Your task to perform on an android device: change the upload size in google photos Image 0: 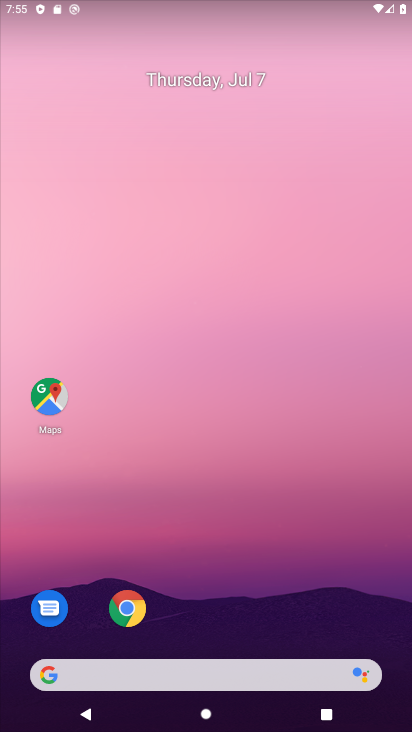
Step 0: drag from (374, 614) to (401, 193)
Your task to perform on an android device: change the upload size in google photos Image 1: 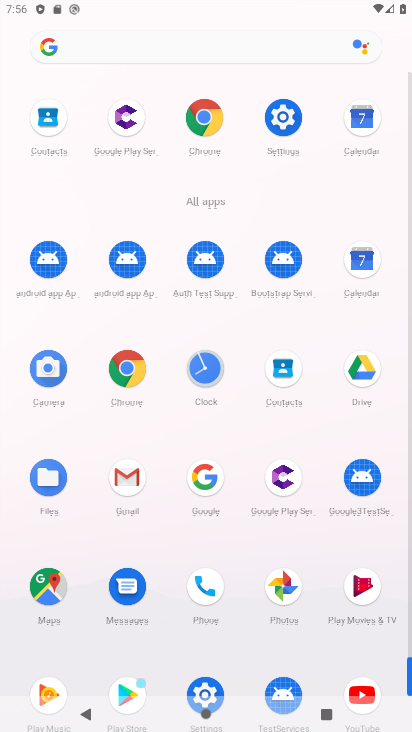
Step 1: click (276, 584)
Your task to perform on an android device: change the upload size in google photos Image 2: 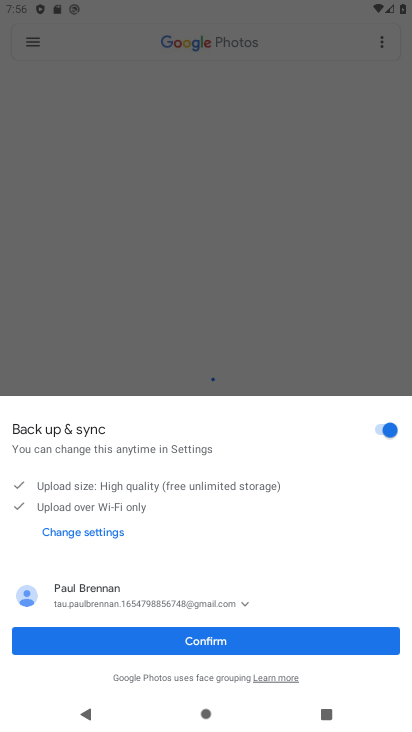
Step 2: click (229, 642)
Your task to perform on an android device: change the upload size in google photos Image 3: 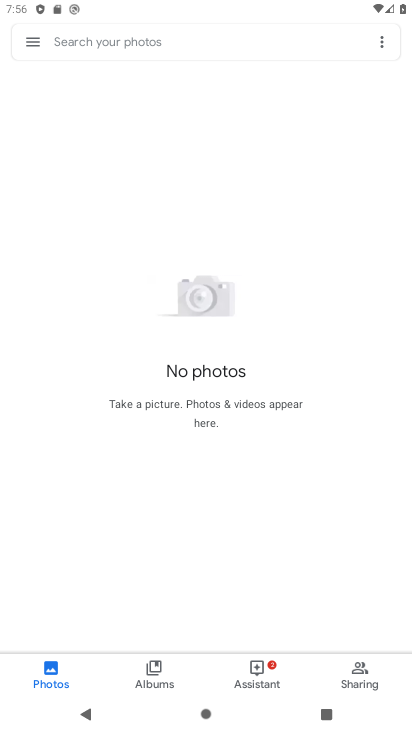
Step 3: click (30, 40)
Your task to perform on an android device: change the upload size in google photos Image 4: 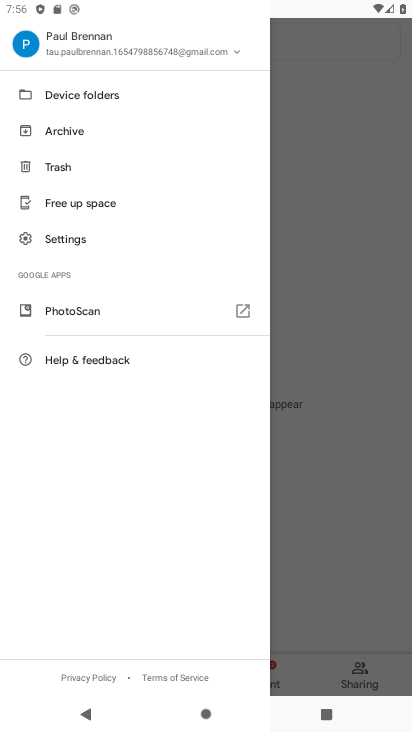
Step 4: click (81, 233)
Your task to perform on an android device: change the upload size in google photos Image 5: 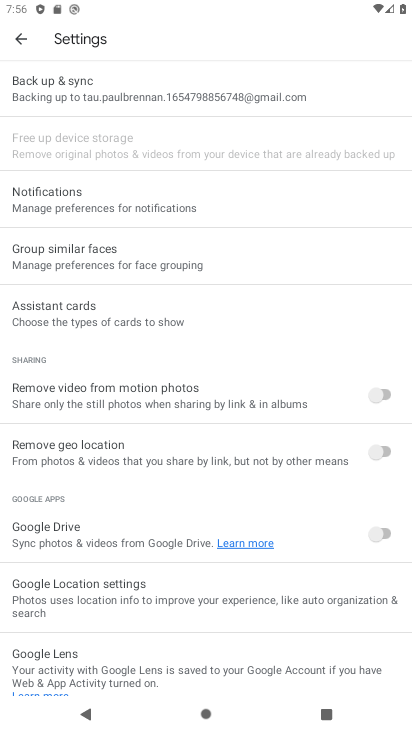
Step 5: click (108, 88)
Your task to perform on an android device: change the upload size in google photos Image 6: 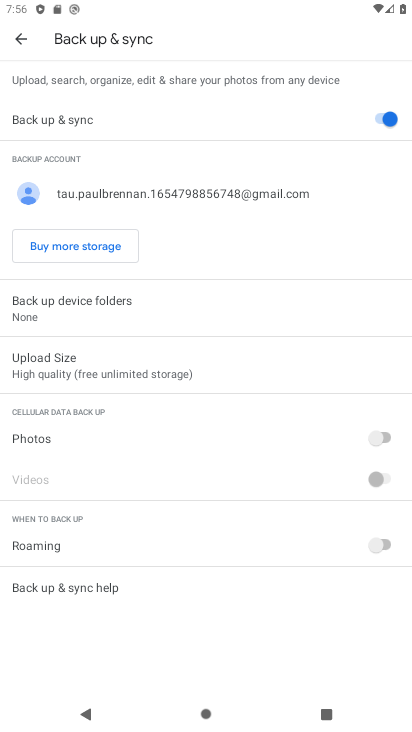
Step 6: click (128, 365)
Your task to perform on an android device: change the upload size in google photos Image 7: 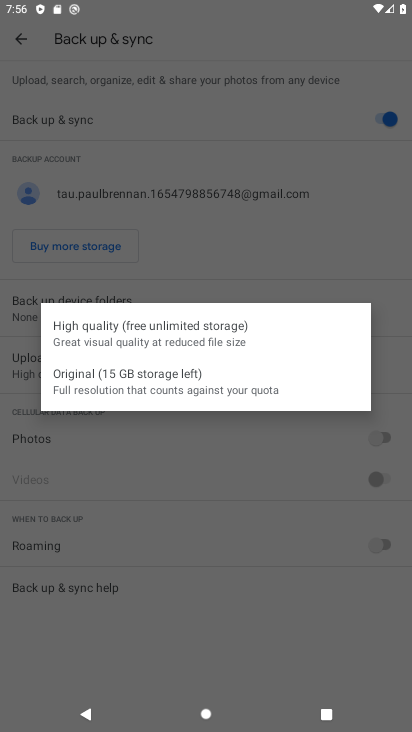
Step 7: click (120, 381)
Your task to perform on an android device: change the upload size in google photos Image 8: 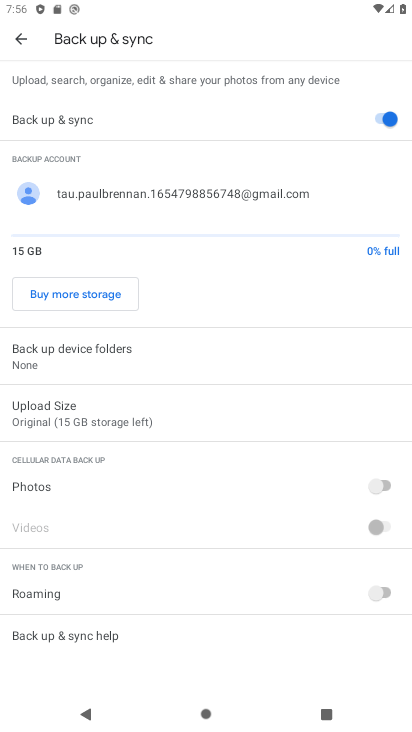
Step 8: task complete